Your task to perform on an android device: open chrome privacy settings Image 0: 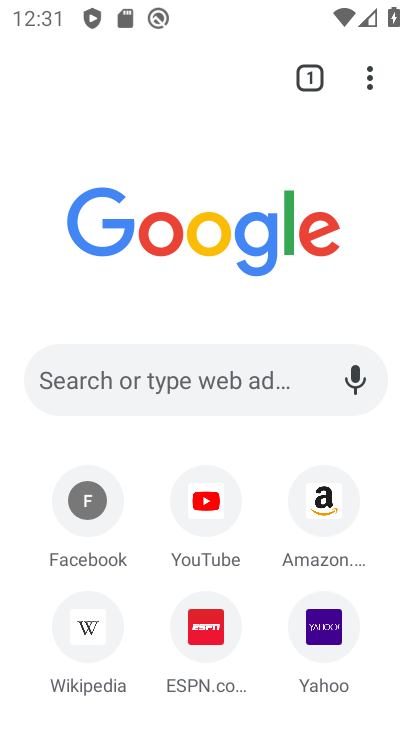
Step 0: press home button
Your task to perform on an android device: open chrome privacy settings Image 1: 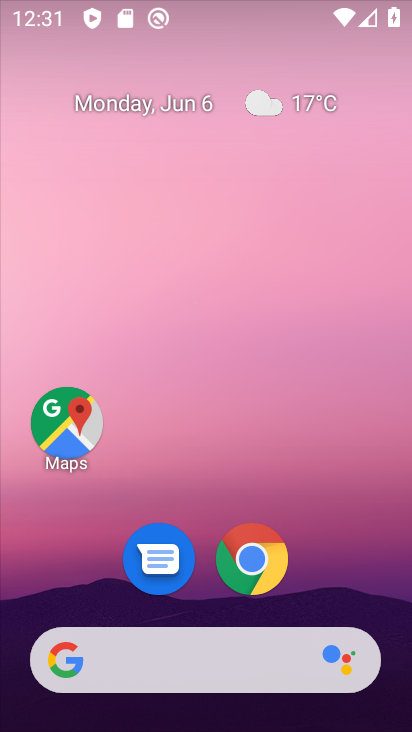
Step 1: drag from (249, 593) to (317, 152)
Your task to perform on an android device: open chrome privacy settings Image 2: 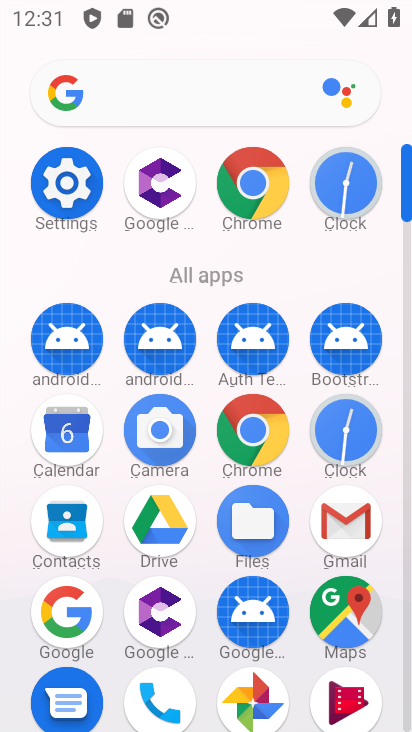
Step 2: click (275, 209)
Your task to perform on an android device: open chrome privacy settings Image 3: 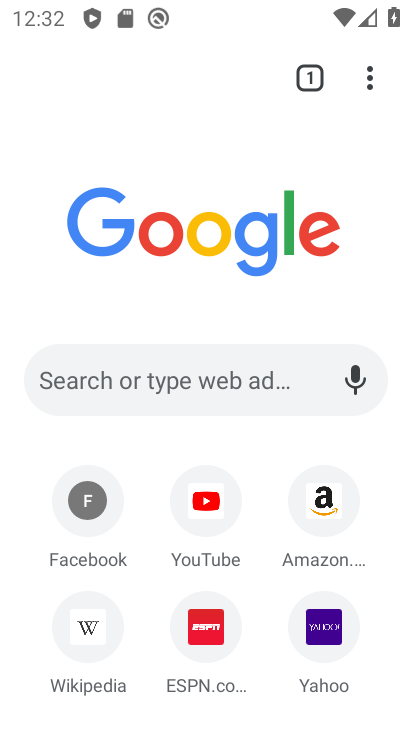
Step 3: click (364, 84)
Your task to perform on an android device: open chrome privacy settings Image 4: 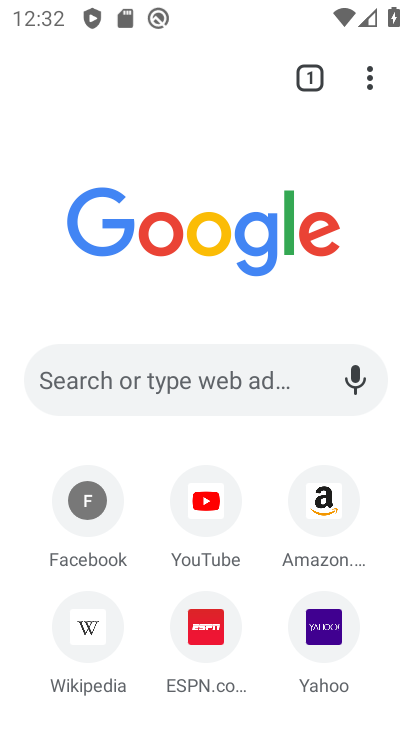
Step 4: click (393, 84)
Your task to perform on an android device: open chrome privacy settings Image 5: 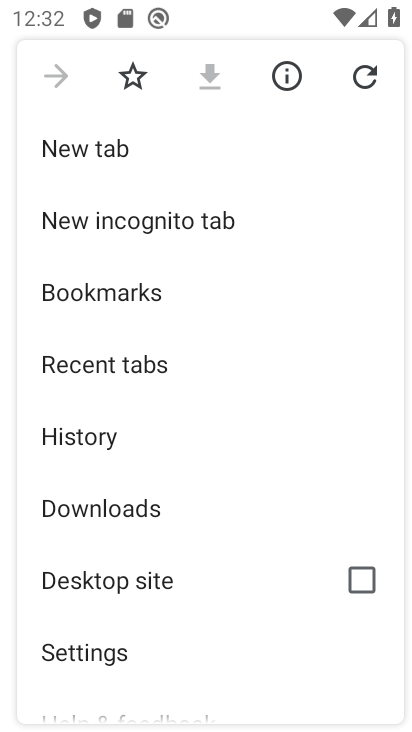
Step 5: drag from (179, 576) to (167, 249)
Your task to perform on an android device: open chrome privacy settings Image 6: 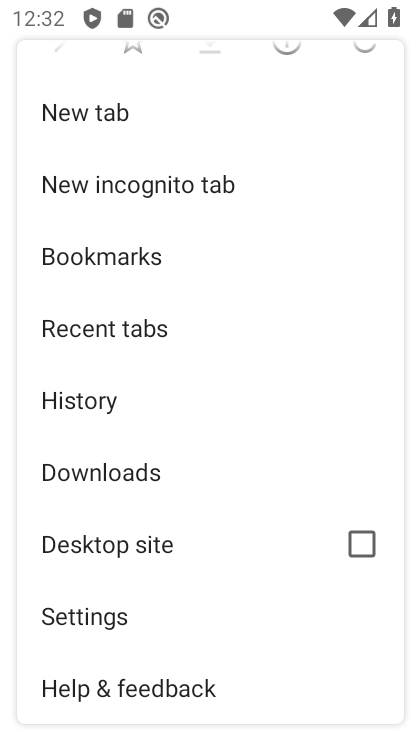
Step 6: click (83, 617)
Your task to perform on an android device: open chrome privacy settings Image 7: 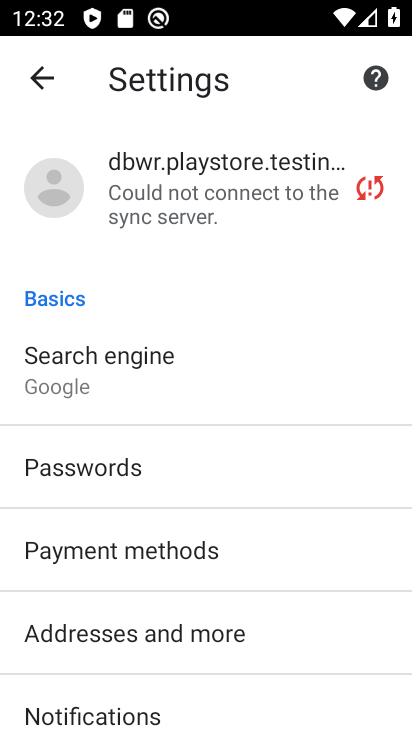
Step 7: drag from (118, 575) to (198, 185)
Your task to perform on an android device: open chrome privacy settings Image 8: 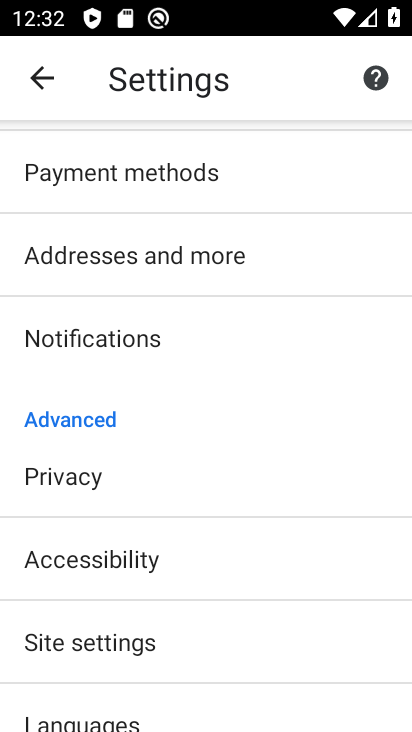
Step 8: drag from (170, 566) to (182, 339)
Your task to perform on an android device: open chrome privacy settings Image 9: 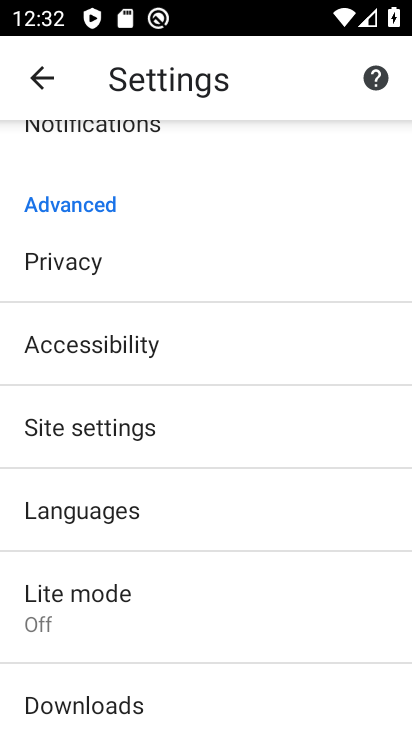
Step 9: click (96, 279)
Your task to perform on an android device: open chrome privacy settings Image 10: 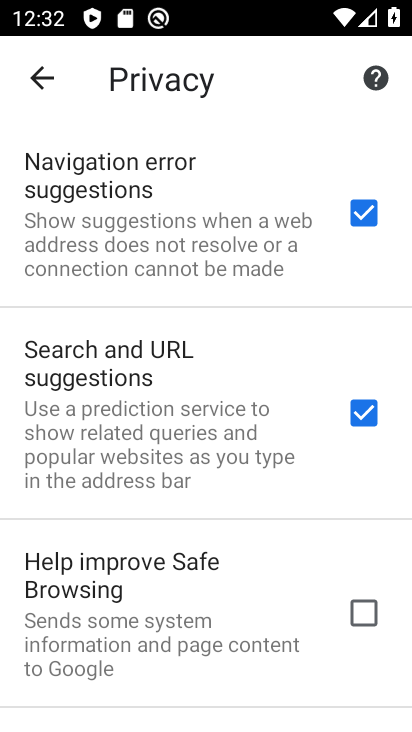
Step 10: task complete